Your task to perform on an android device: toggle show notifications on the lock screen Image 0: 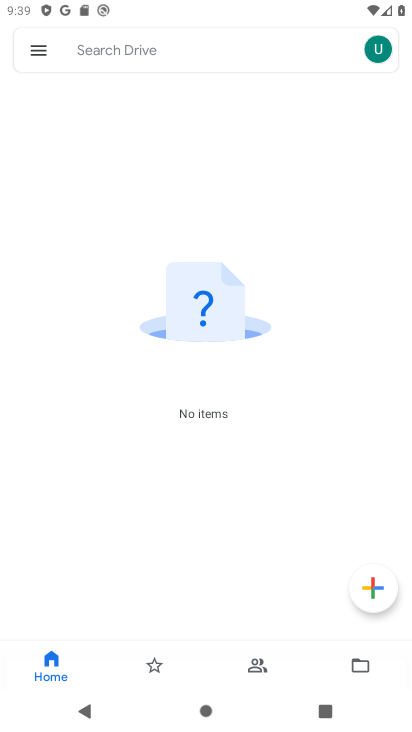
Step 0: press home button
Your task to perform on an android device: toggle show notifications on the lock screen Image 1: 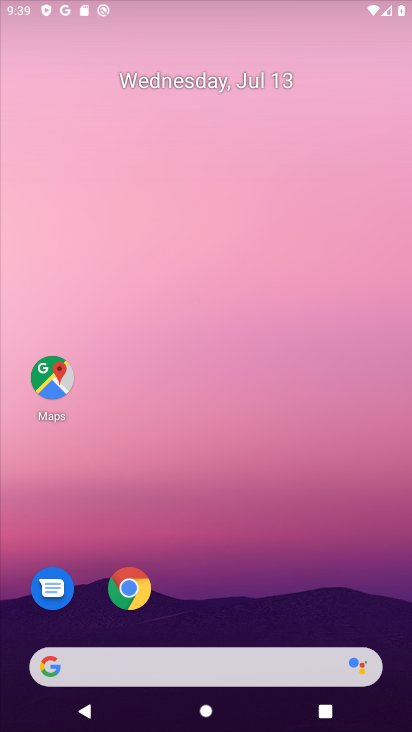
Step 1: drag from (215, 612) to (276, 82)
Your task to perform on an android device: toggle show notifications on the lock screen Image 2: 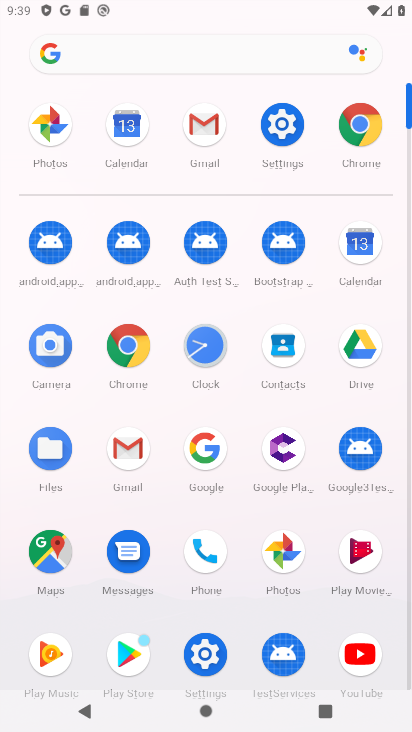
Step 2: click (202, 654)
Your task to perform on an android device: toggle show notifications on the lock screen Image 3: 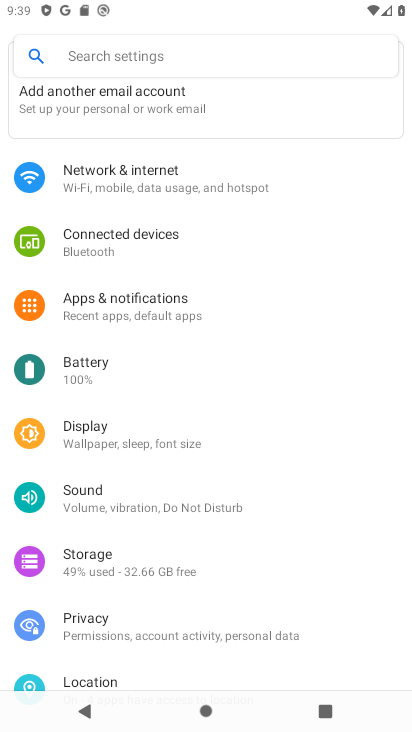
Step 3: click (133, 301)
Your task to perform on an android device: toggle show notifications on the lock screen Image 4: 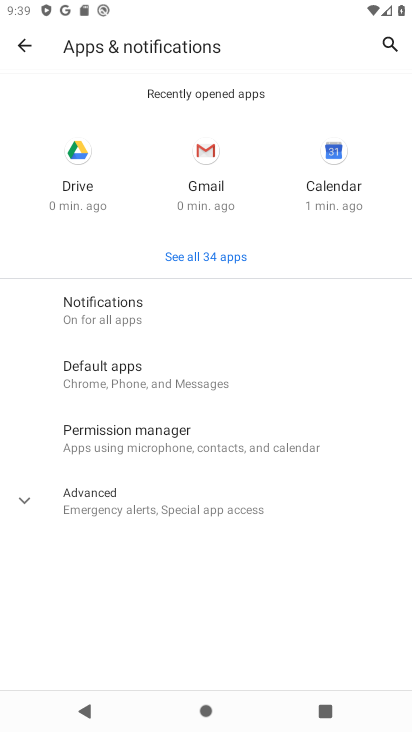
Step 4: click (146, 309)
Your task to perform on an android device: toggle show notifications on the lock screen Image 5: 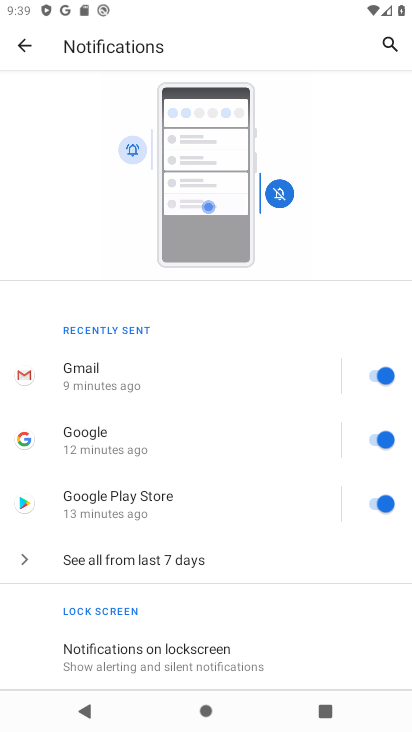
Step 5: drag from (239, 461) to (222, 197)
Your task to perform on an android device: toggle show notifications on the lock screen Image 6: 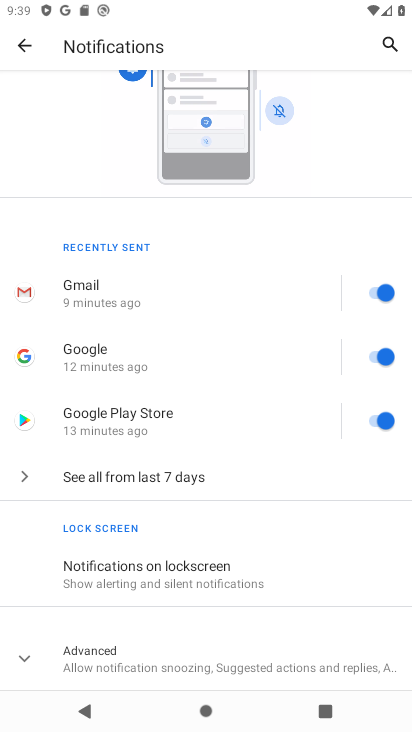
Step 6: click (167, 580)
Your task to perform on an android device: toggle show notifications on the lock screen Image 7: 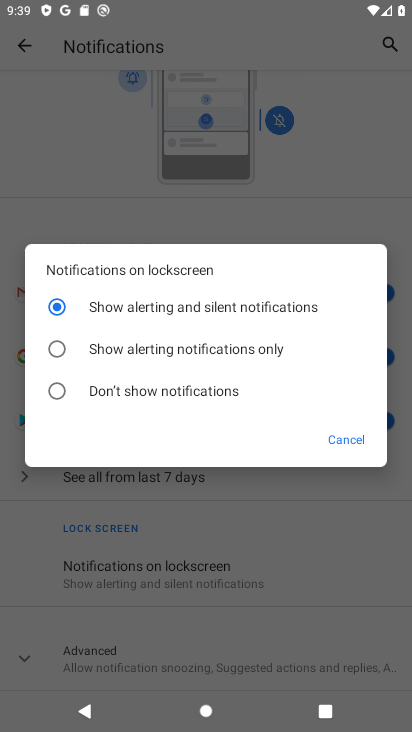
Step 7: task complete